Your task to perform on an android device: Search for Italian restaurants on Maps Image 0: 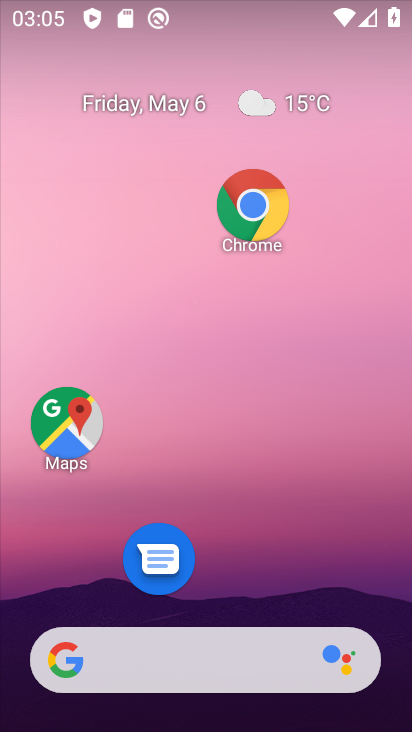
Step 0: drag from (294, 571) to (270, 340)
Your task to perform on an android device: Search for Italian restaurants on Maps Image 1: 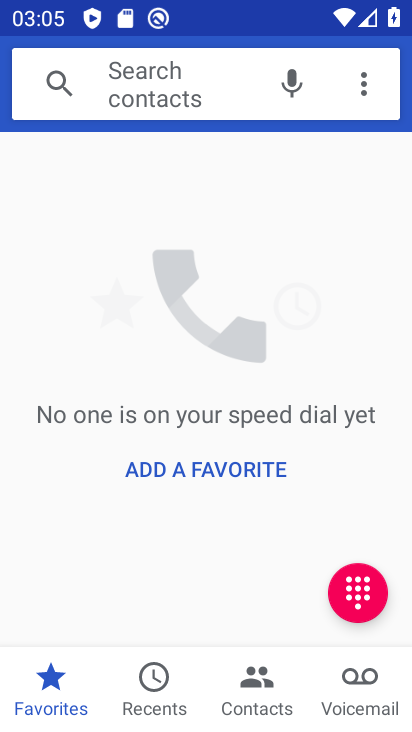
Step 1: press home button
Your task to perform on an android device: Search for Italian restaurants on Maps Image 2: 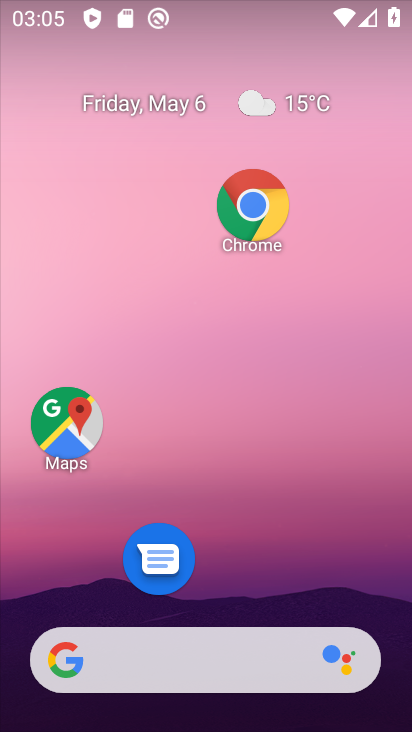
Step 2: drag from (245, 555) to (218, 197)
Your task to perform on an android device: Search for Italian restaurants on Maps Image 3: 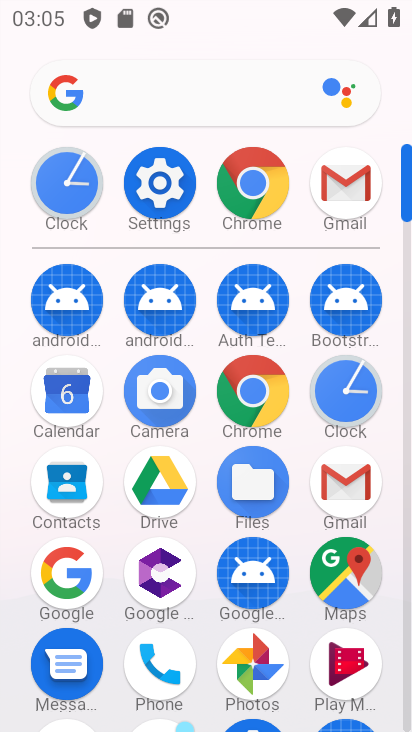
Step 3: click (348, 551)
Your task to perform on an android device: Search for Italian restaurants on Maps Image 4: 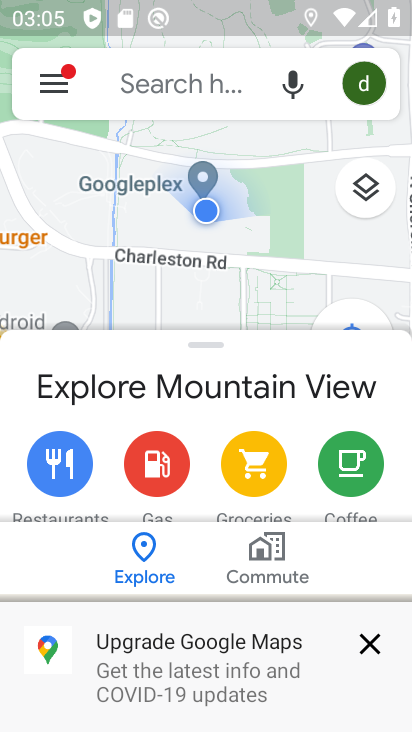
Step 4: click (187, 64)
Your task to perform on an android device: Search for Italian restaurants on Maps Image 5: 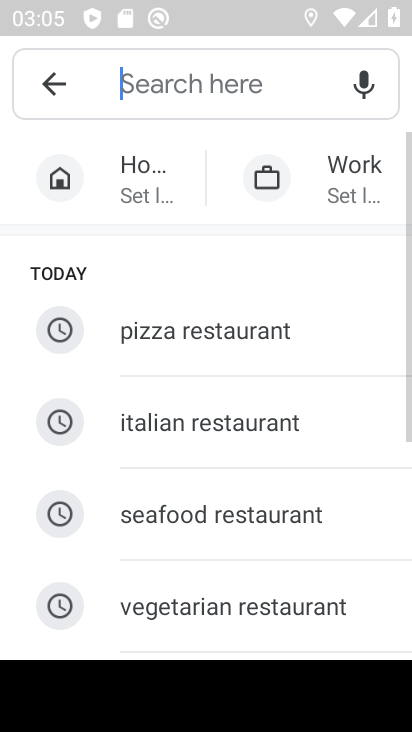
Step 5: click (244, 398)
Your task to perform on an android device: Search for Italian restaurants on Maps Image 6: 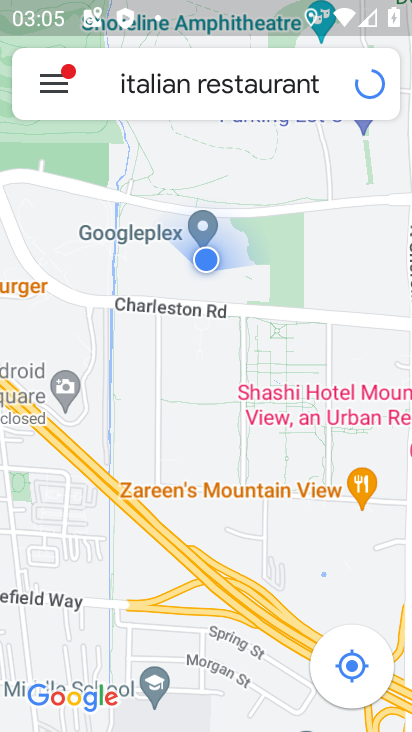
Step 6: task complete